Your task to perform on an android device: Go to Reddit.com Image 0: 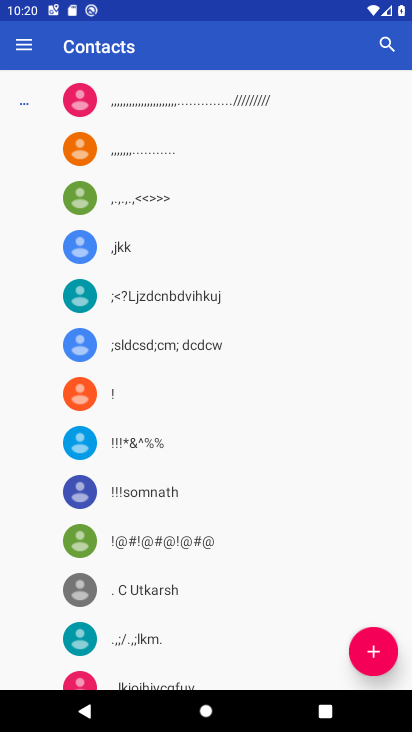
Step 0: press home button
Your task to perform on an android device: Go to Reddit.com Image 1: 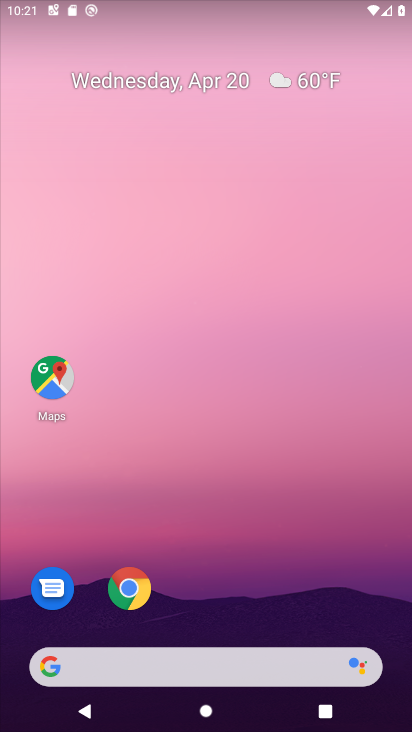
Step 1: click (126, 592)
Your task to perform on an android device: Go to Reddit.com Image 2: 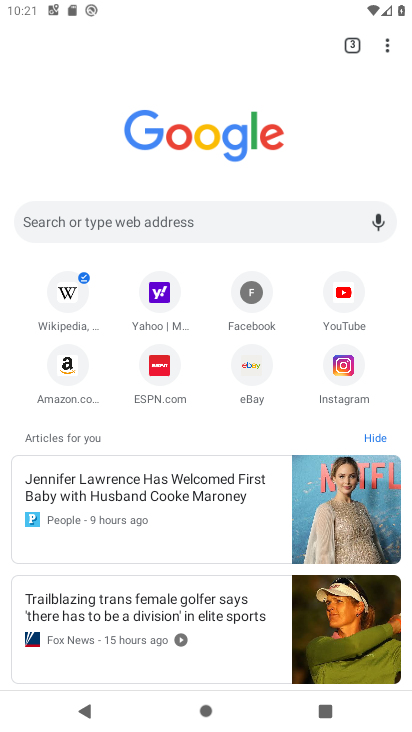
Step 2: click (135, 215)
Your task to perform on an android device: Go to Reddit.com Image 3: 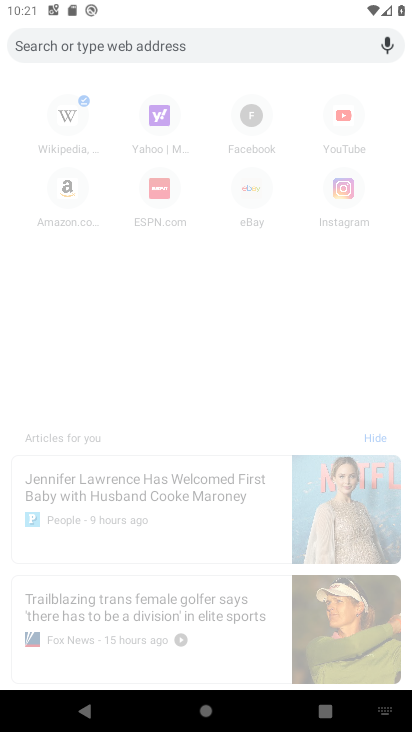
Step 3: type " Reddit.com"
Your task to perform on an android device: Go to Reddit.com Image 4: 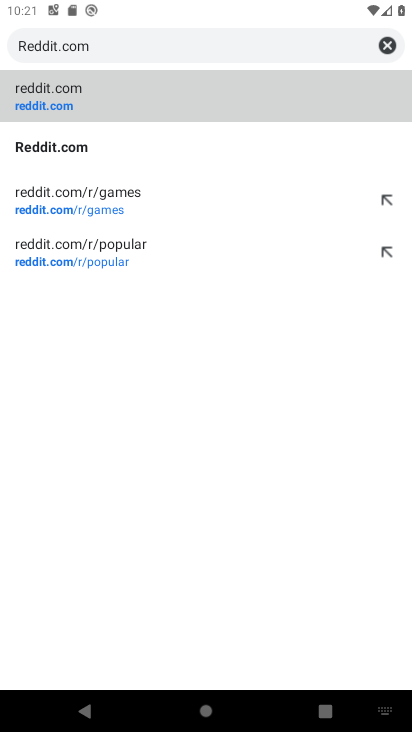
Step 4: click (65, 147)
Your task to perform on an android device: Go to Reddit.com Image 5: 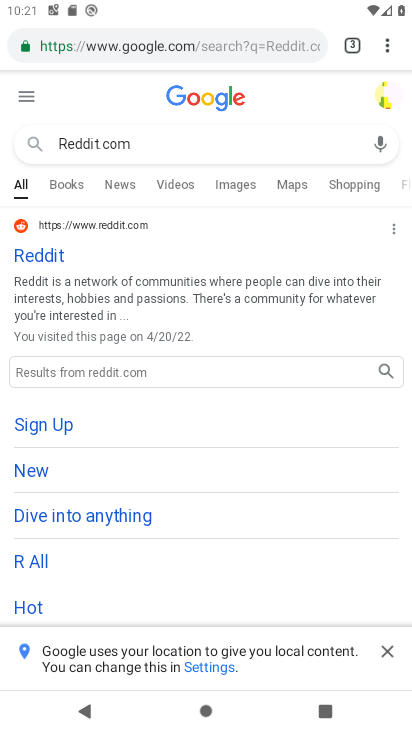
Step 5: task complete